Your task to perform on an android device: toggle sleep mode Image 0: 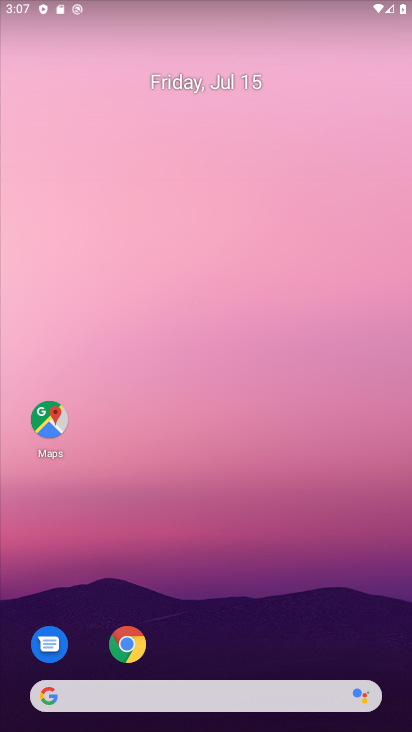
Step 0: drag from (257, 697) to (269, 73)
Your task to perform on an android device: toggle sleep mode Image 1: 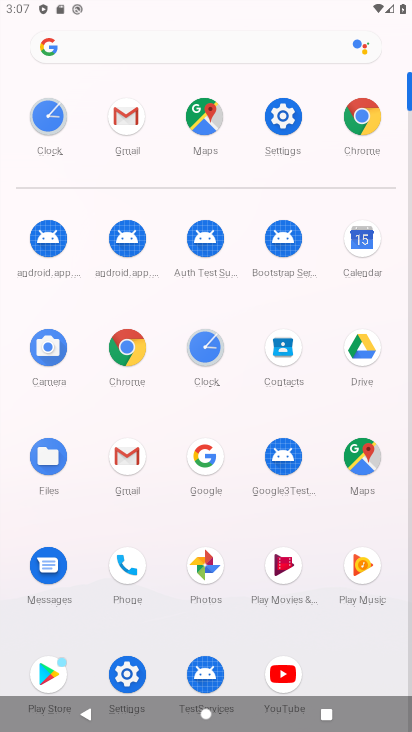
Step 1: click (288, 120)
Your task to perform on an android device: toggle sleep mode Image 2: 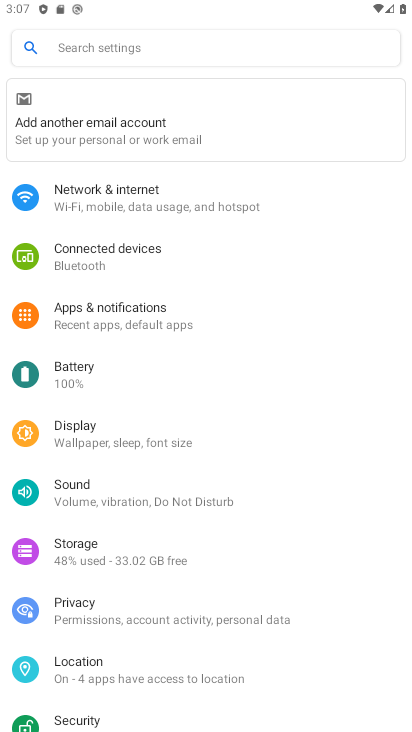
Step 2: click (114, 441)
Your task to perform on an android device: toggle sleep mode Image 3: 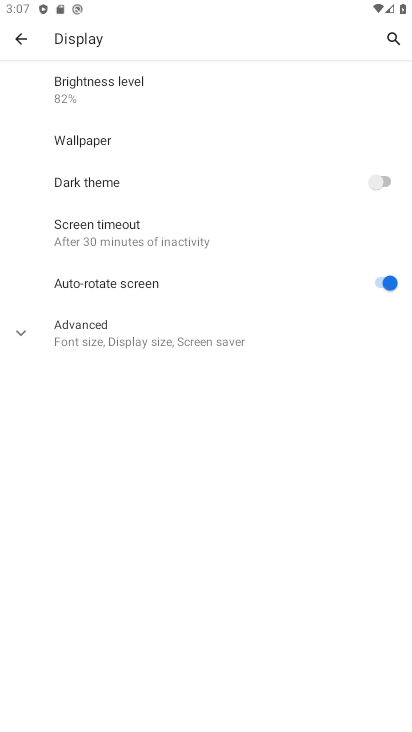
Step 3: task complete